Your task to perform on an android device: open device folders in google photos Image 0: 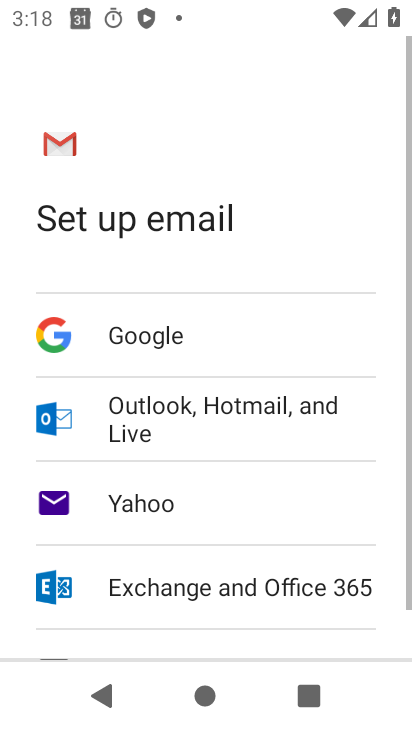
Step 0: press home button
Your task to perform on an android device: open device folders in google photos Image 1: 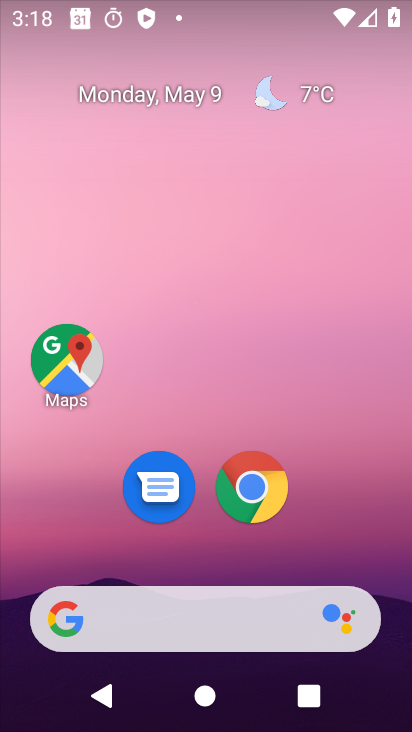
Step 1: drag from (342, 610) to (256, 0)
Your task to perform on an android device: open device folders in google photos Image 2: 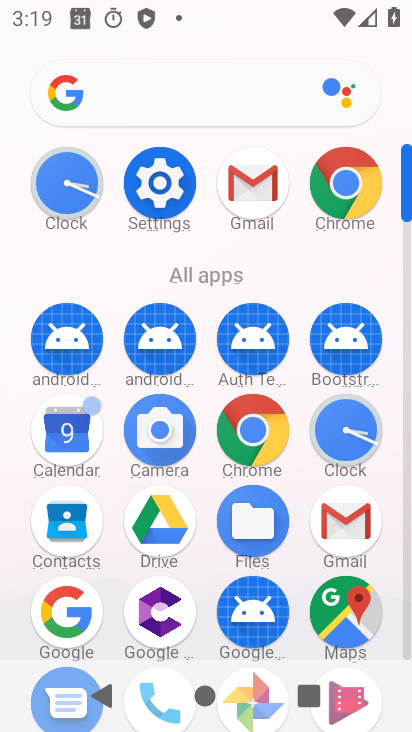
Step 2: drag from (288, 604) to (305, 199)
Your task to perform on an android device: open device folders in google photos Image 3: 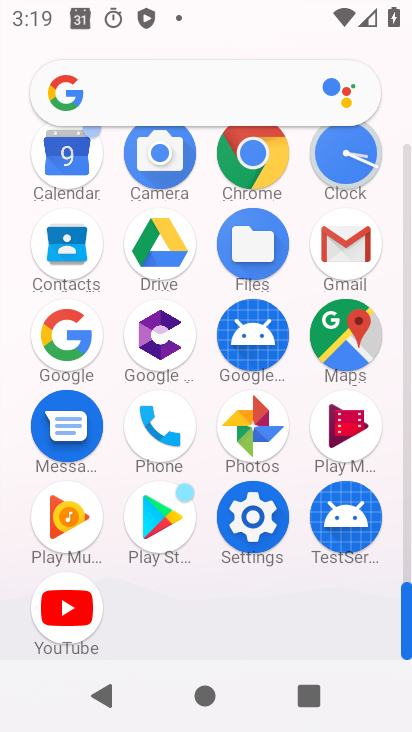
Step 3: click (258, 429)
Your task to perform on an android device: open device folders in google photos Image 4: 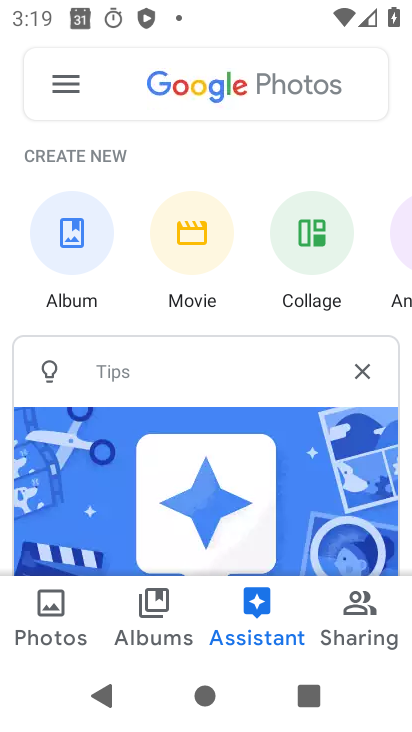
Step 4: click (140, 612)
Your task to perform on an android device: open device folders in google photos Image 5: 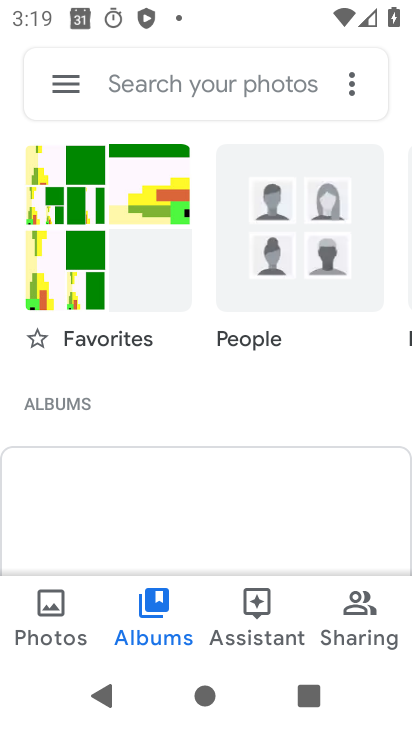
Step 5: click (55, 617)
Your task to perform on an android device: open device folders in google photos Image 6: 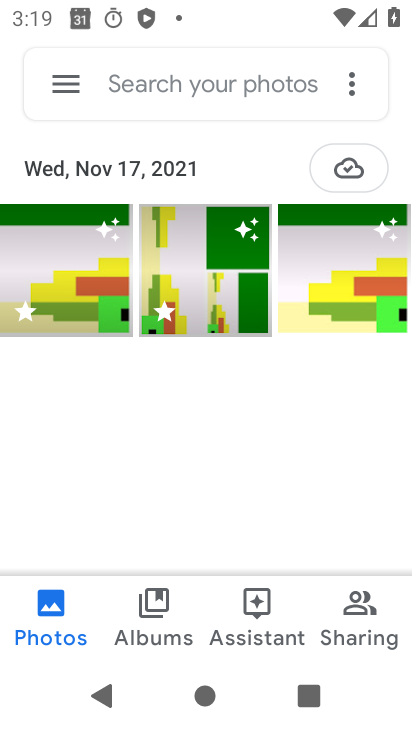
Step 6: click (81, 90)
Your task to perform on an android device: open device folders in google photos Image 7: 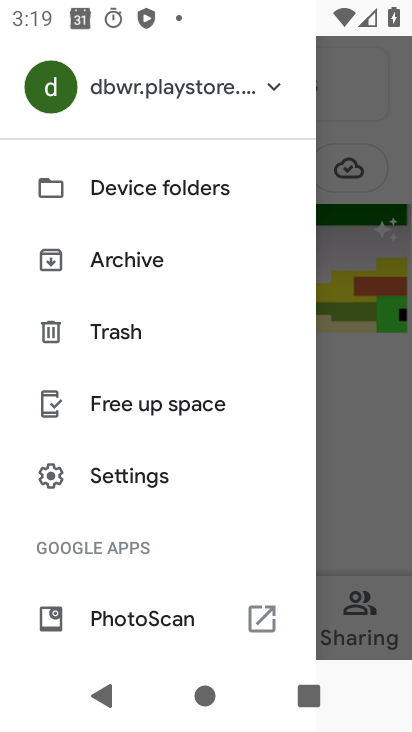
Step 7: click (212, 191)
Your task to perform on an android device: open device folders in google photos Image 8: 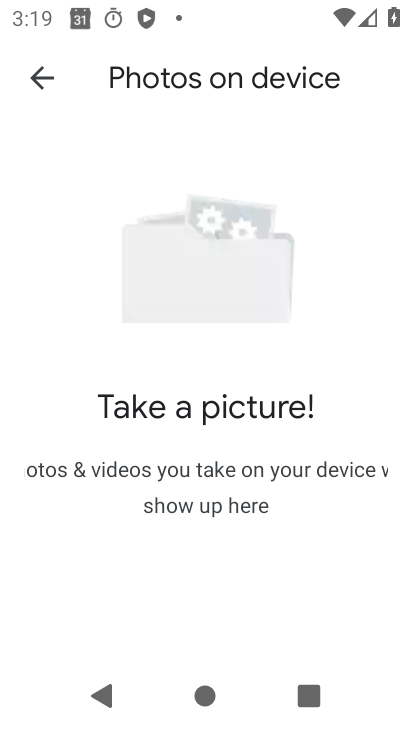
Step 8: task complete